Your task to perform on an android device: toggle location history Image 0: 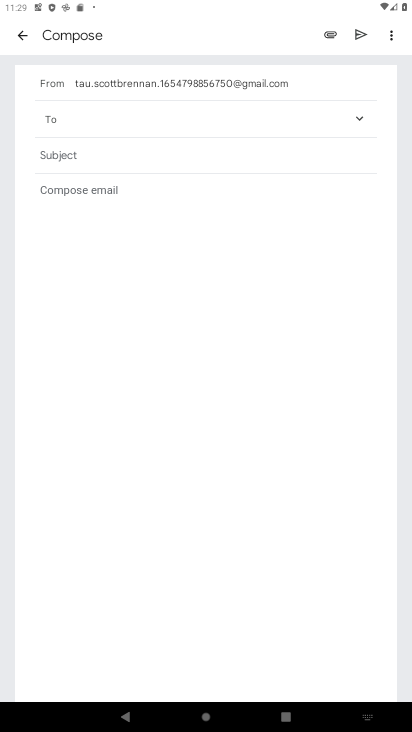
Step 0: press home button
Your task to perform on an android device: toggle location history Image 1: 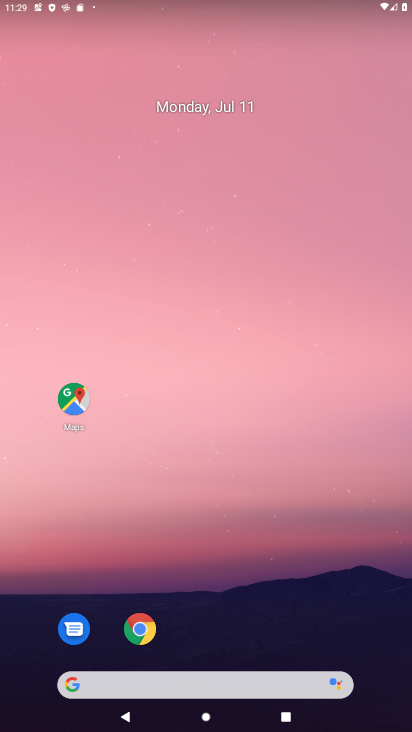
Step 1: drag from (285, 581) to (209, 113)
Your task to perform on an android device: toggle location history Image 2: 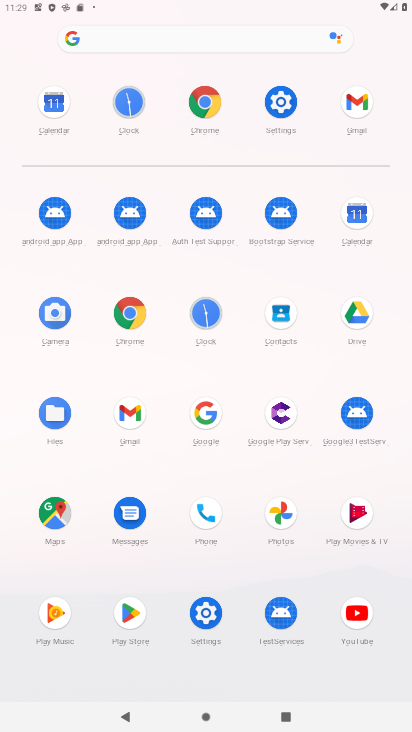
Step 2: click (280, 119)
Your task to perform on an android device: toggle location history Image 3: 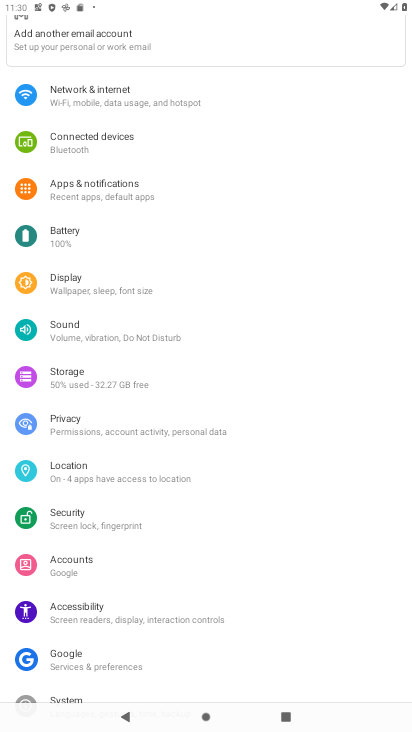
Step 3: click (166, 482)
Your task to perform on an android device: toggle location history Image 4: 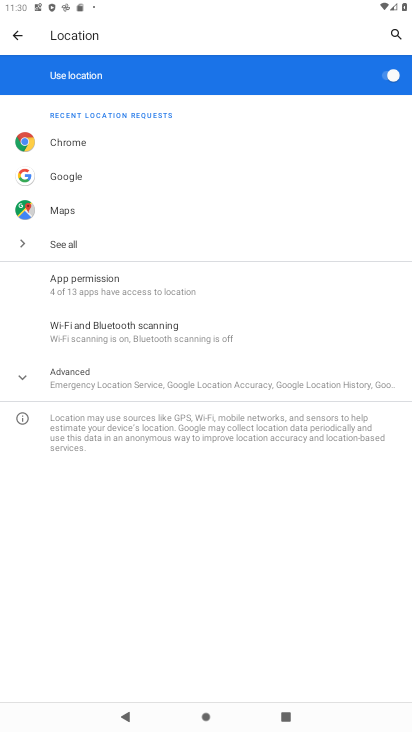
Step 4: click (155, 387)
Your task to perform on an android device: toggle location history Image 5: 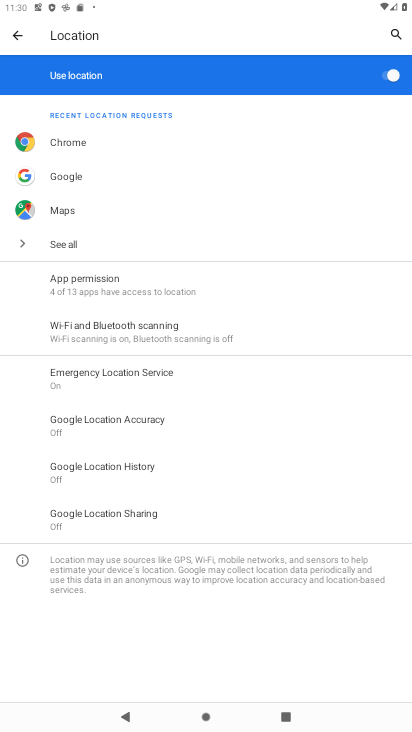
Step 5: click (181, 465)
Your task to perform on an android device: toggle location history Image 6: 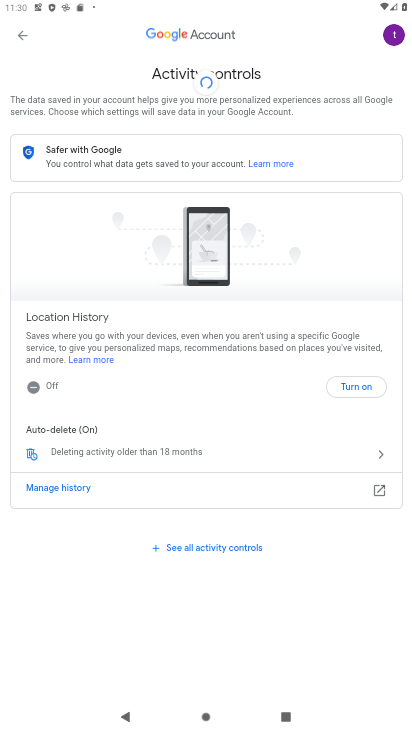
Step 6: click (341, 384)
Your task to perform on an android device: toggle location history Image 7: 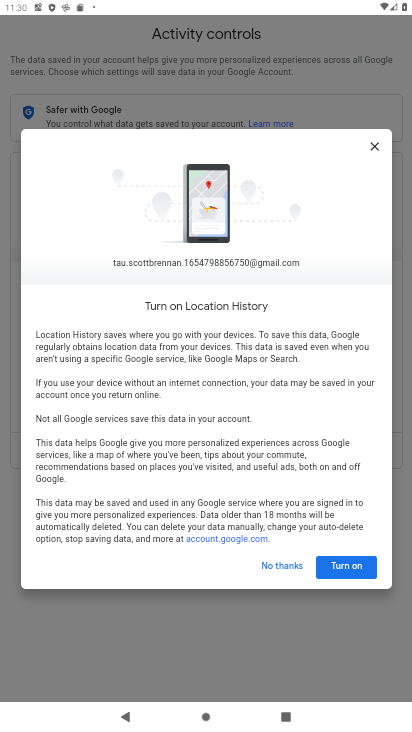
Step 7: click (345, 570)
Your task to perform on an android device: toggle location history Image 8: 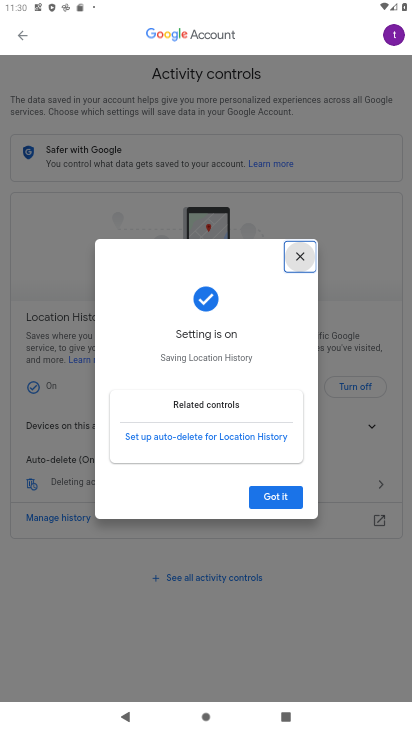
Step 8: click (284, 503)
Your task to perform on an android device: toggle location history Image 9: 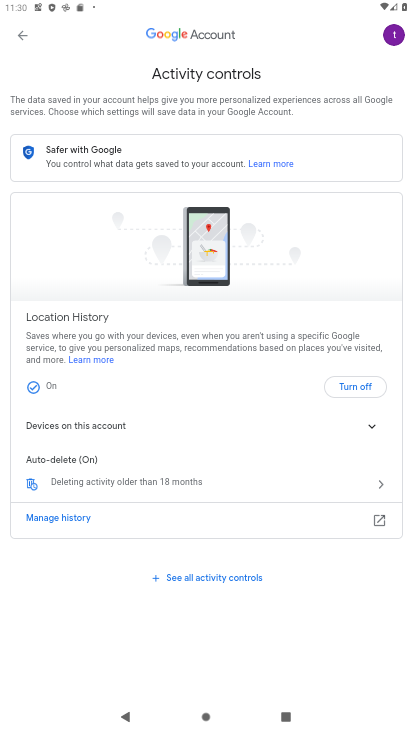
Step 9: task complete